Your task to perform on an android device: Open settings on Google Maps Image 0: 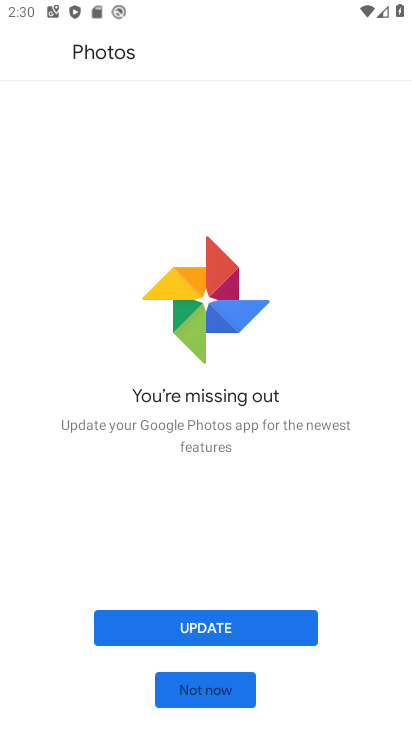
Step 0: press home button
Your task to perform on an android device: Open settings on Google Maps Image 1: 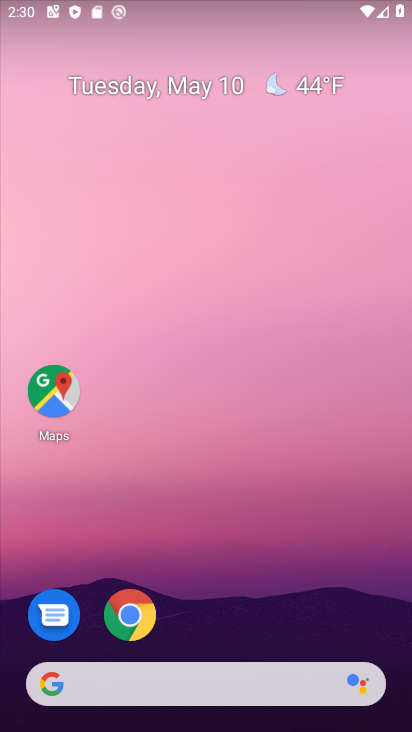
Step 1: drag from (224, 552) to (270, 76)
Your task to perform on an android device: Open settings on Google Maps Image 2: 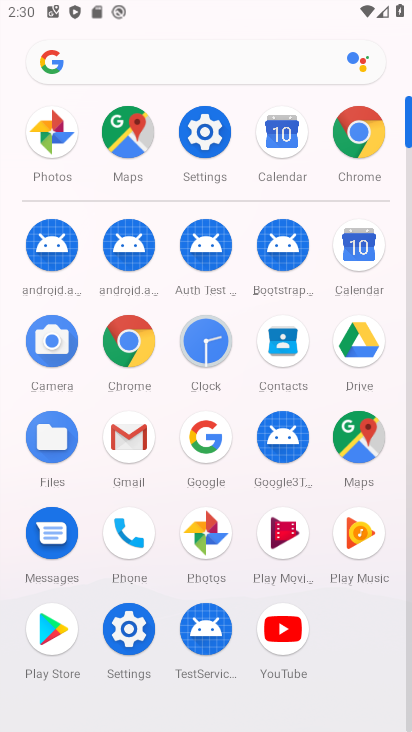
Step 2: click (130, 140)
Your task to perform on an android device: Open settings on Google Maps Image 3: 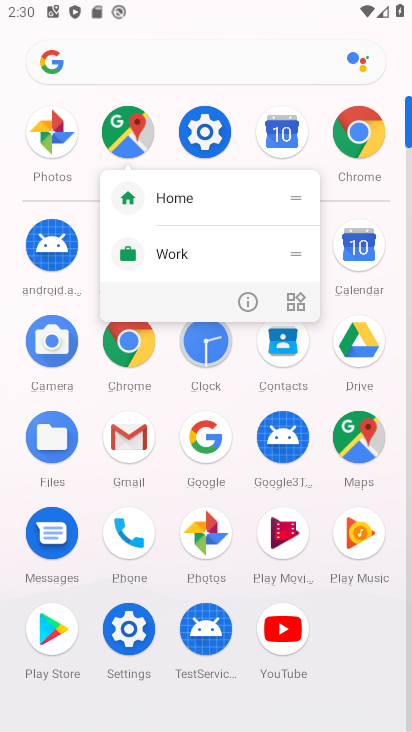
Step 3: click (130, 136)
Your task to perform on an android device: Open settings on Google Maps Image 4: 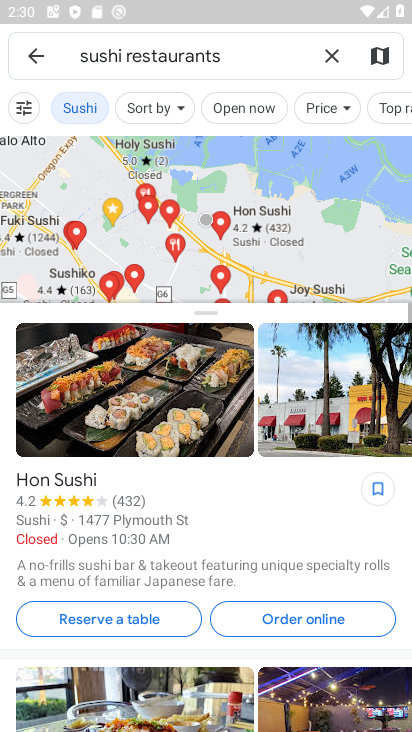
Step 4: click (335, 52)
Your task to perform on an android device: Open settings on Google Maps Image 5: 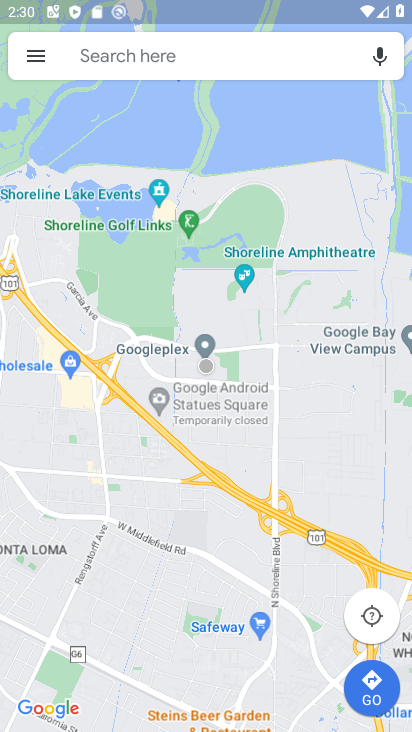
Step 5: click (41, 50)
Your task to perform on an android device: Open settings on Google Maps Image 6: 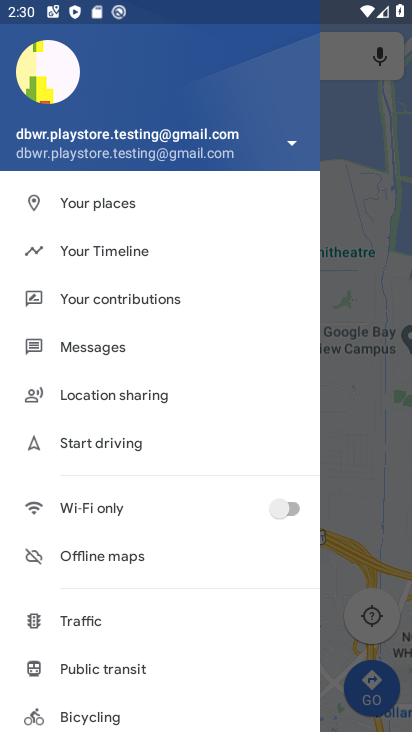
Step 6: drag from (189, 418) to (208, 238)
Your task to perform on an android device: Open settings on Google Maps Image 7: 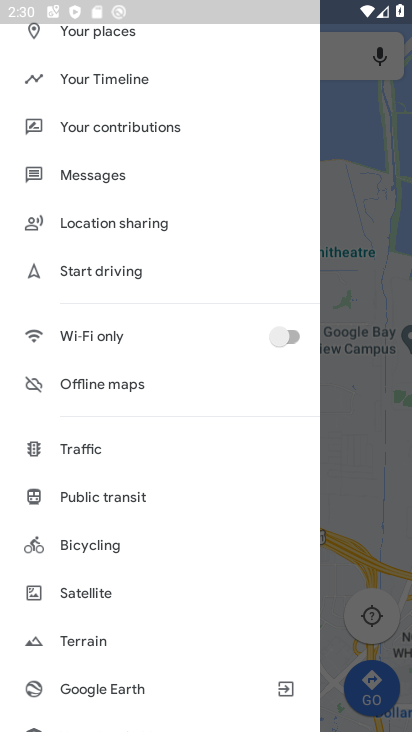
Step 7: drag from (204, 554) to (209, 244)
Your task to perform on an android device: Open settings on Google Maps Image 8: 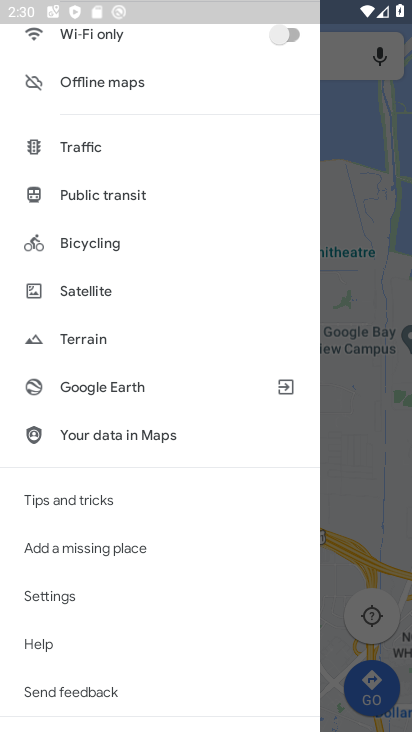
Step 8: click (51, 598)
Your task to perform on an android device: Open settings on Google Maps Image 9: 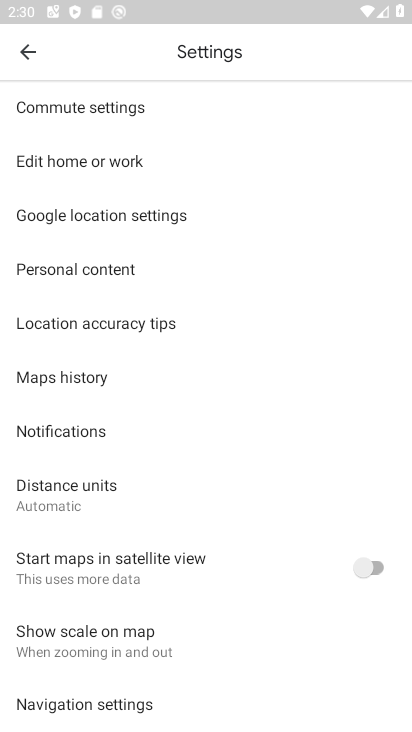
Step 9: task complete